Your task to perform on an android device: clear all cookies in the chrome app Image 0: 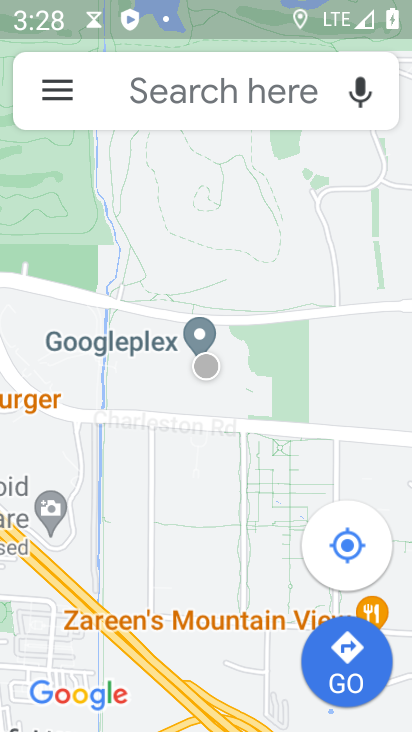
Step 0: press home button
Your task to perform on an android device: clear all cookies in the chrome app Image 1: 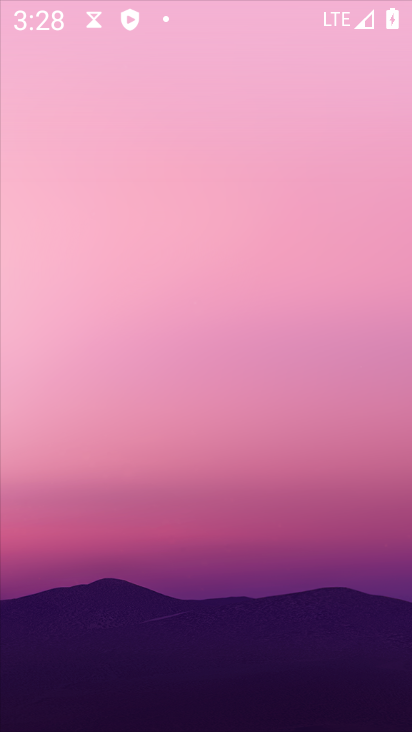
Step 1: click (333, 546)
Your task to perform on an android device: clear all cookies in the chrome app Image 2: 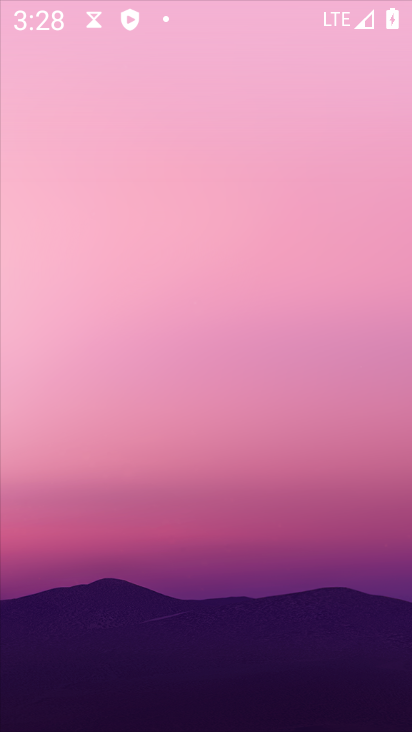
Step 2: drag from (325, 558) to (366, 78)
Your task to perform on an android device: clear all cookies in the chrome app Image 3: 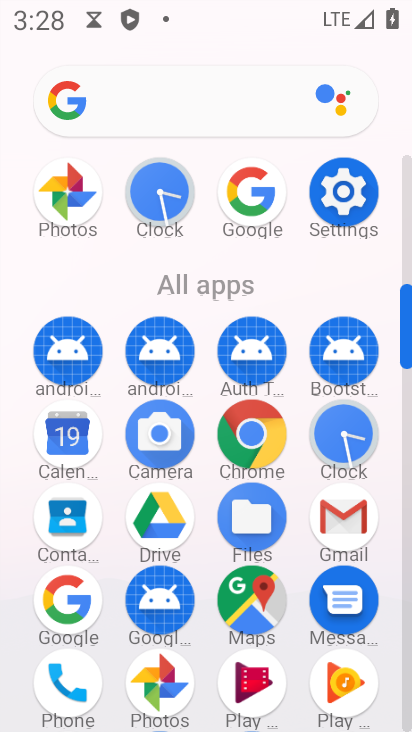
Step 3: click (276, 438)
Your task to perform on an android device: clear all cookies in the chrome app Image 4: 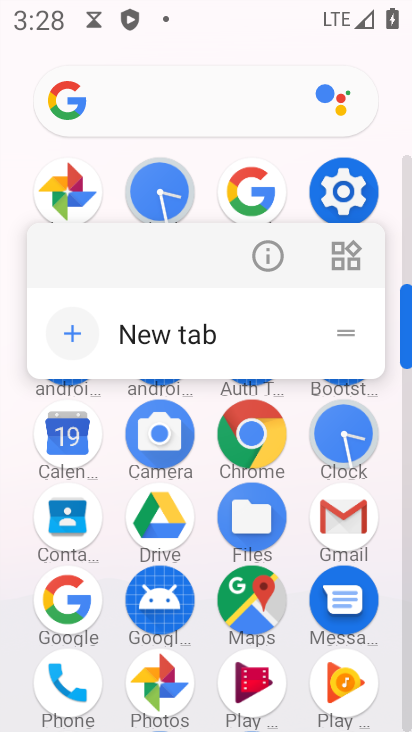
Step 4: click (276, 437)
Your task to perform on an android device: clear all cookies in the chrome app Image 5: 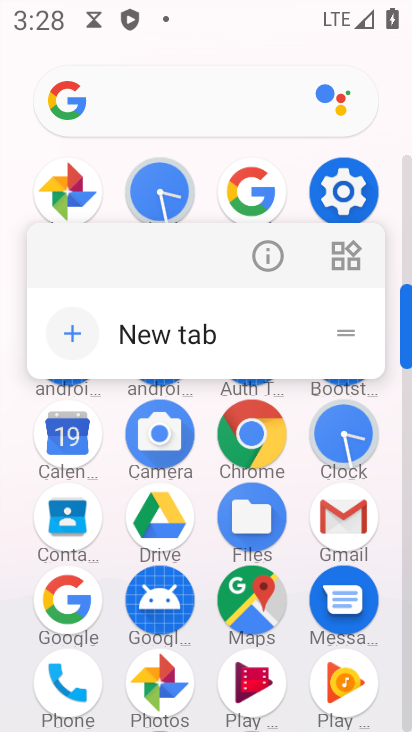
Step 5: click (259, 443)
Your task to perform on an android device: clear all cookies in the chrome app Image 6: 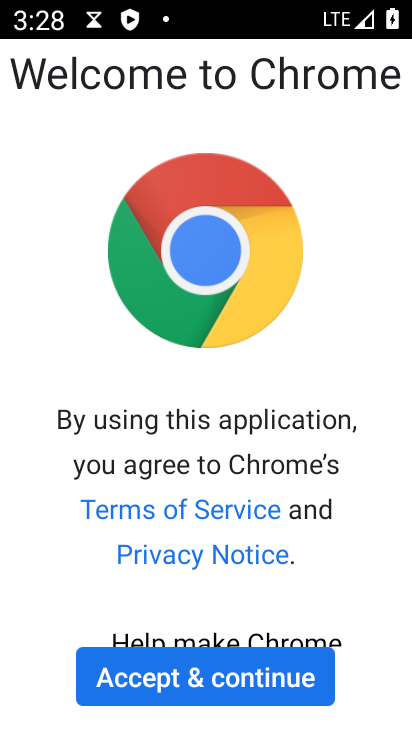
Step 6: click (180, 682)
Your task to perform on an android device: clear all cookies in the chrome app Image 7: 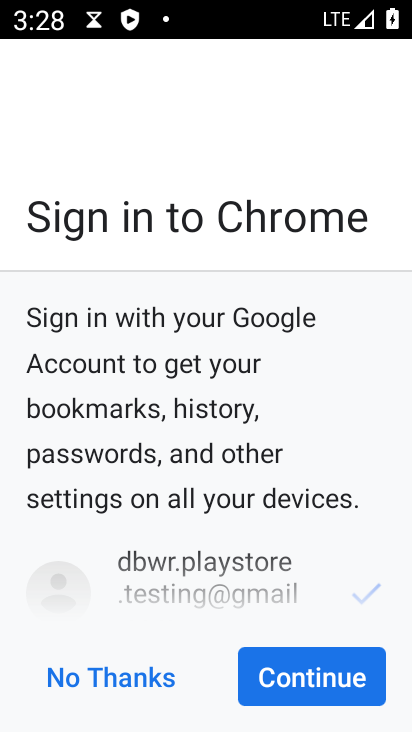
Step 7: click (165, 679)
Your task to perform on an android device: clear all cookies in the chrome app Image 8: 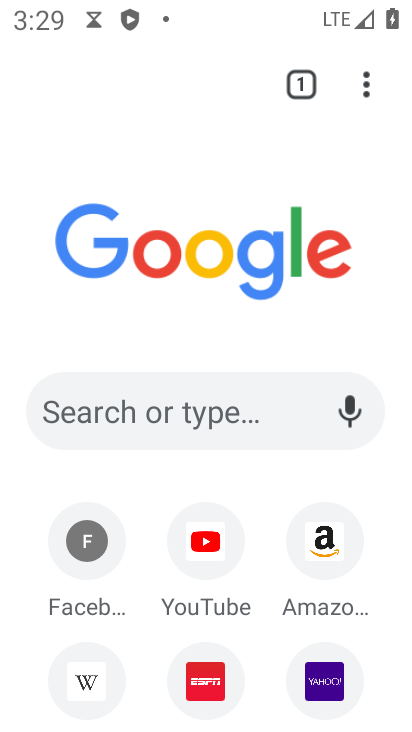
Step 8: task complete